Your task to perform on an android device: Find coffee shops on Maps Image 0: 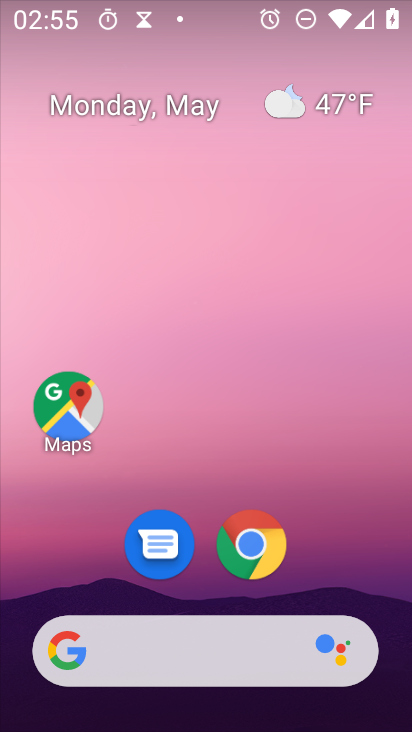
Step 0: drag from (294, 581) to (302, 1)
Your task to perform on an android device: Find coffee shops on Maps Image 1: 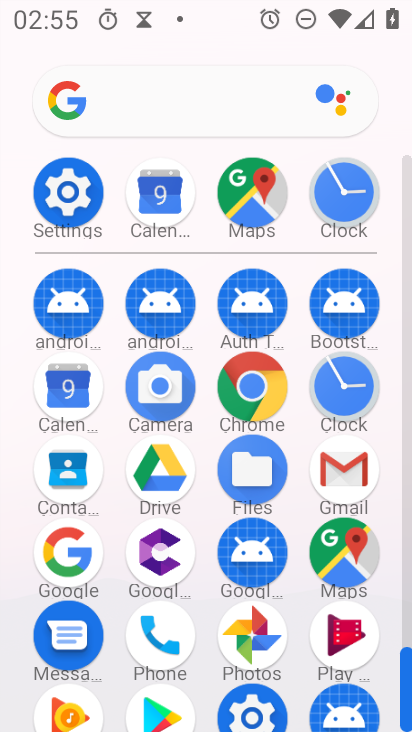
Step 1: click (366, 561)
Your task to perform on an android device: Find coffee shops on Maps Image 2: 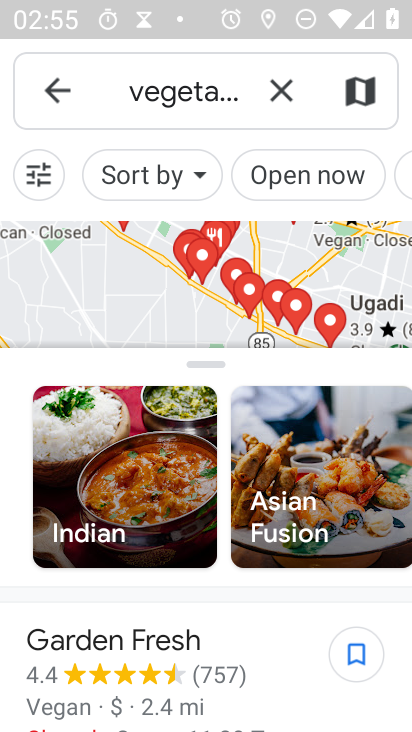
Step 2: click (280, 88)
Your task to perform on an android device: Find coffee shops on Maps Image 3: 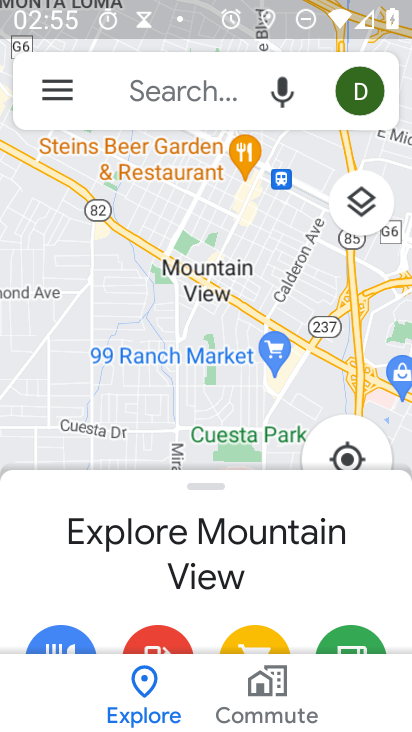
Step 3: click (191, 91)
Your task to perform on an android device: Find coffee shops on Maps Image 4: 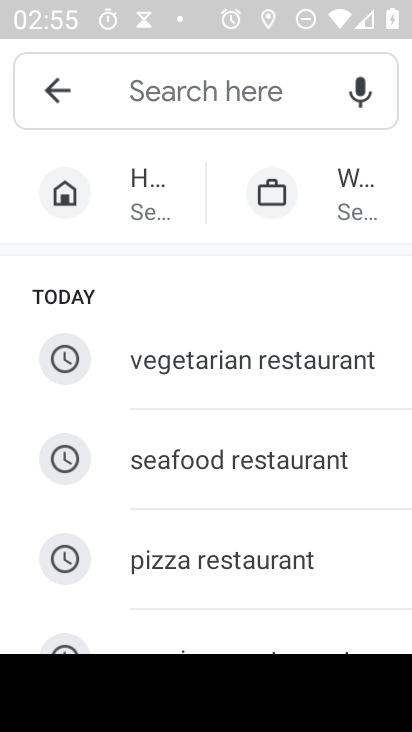
Step 4: type "coffee shops"
Your task to perform on an android device: Find coffee shops on Maps Image 5: 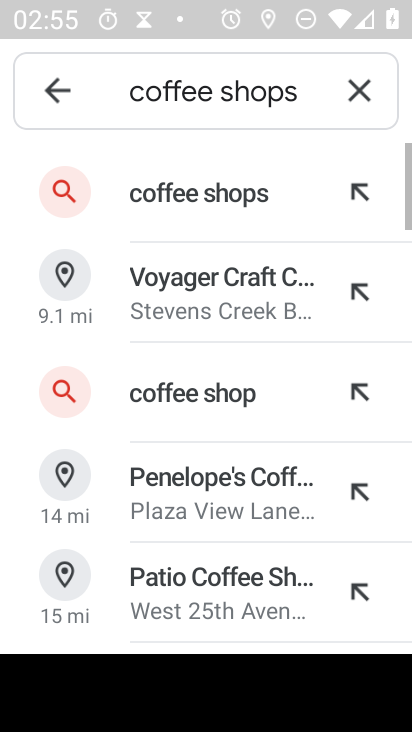
Step 5: click (177, 201)
Your task to perform on an android device: Find coffee shops on Maps Image 6: 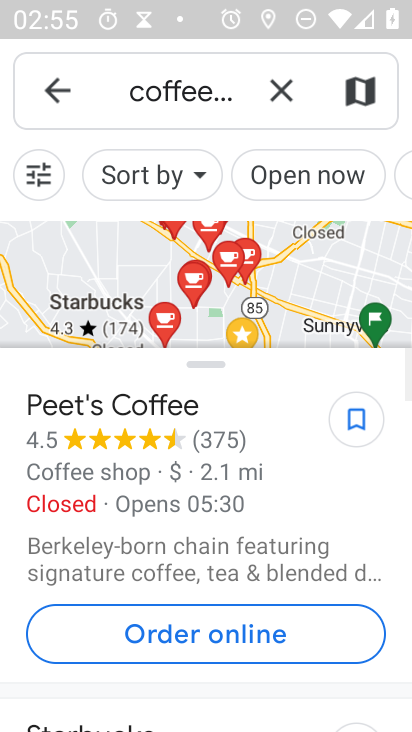
Step 6: task complete